Your task to perform on an android device: empty trash in google photos Image 0: 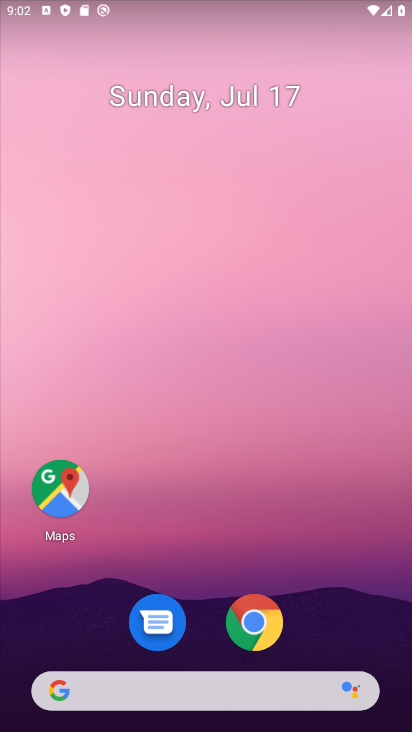
Step 0: drag from (244, 675) to (223, 110)
Your task to perform on an android device: empty trash in google photos Image 1: 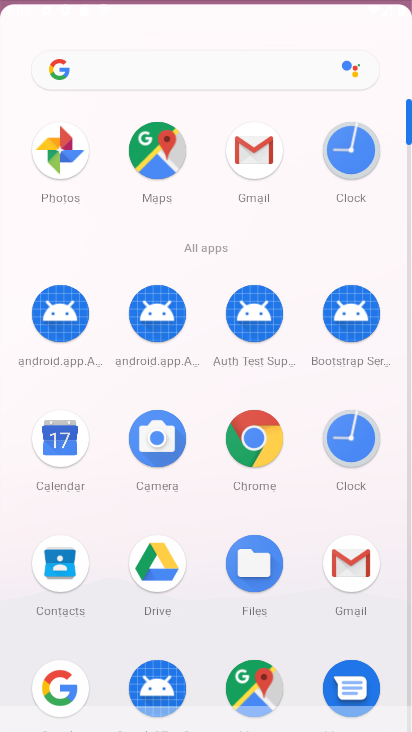
Step 1: drag from (220, 726) to (177, 26)
Your task to perform on an android device: empty trash in google photos Image 2: 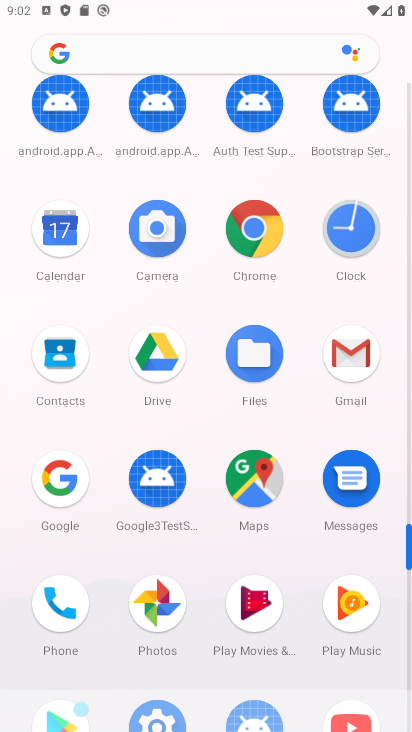
Step 2: click (161, 609)
Your task to perform on an android device: empty trash in google photos Image 3: 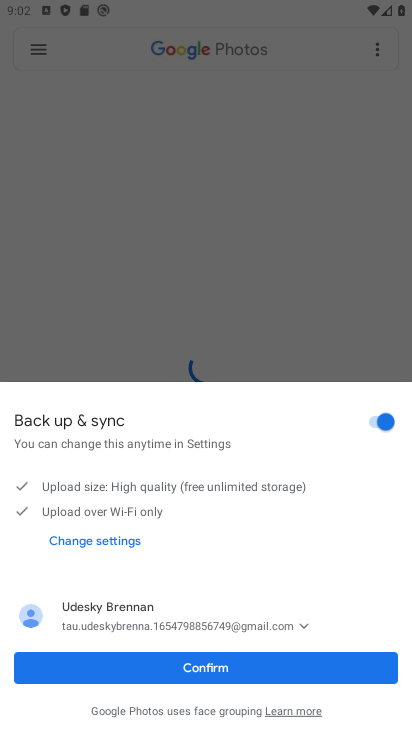
Step 3: click (262, 667)
Your task to perform on an android device: empty trash in google photos Image 4: 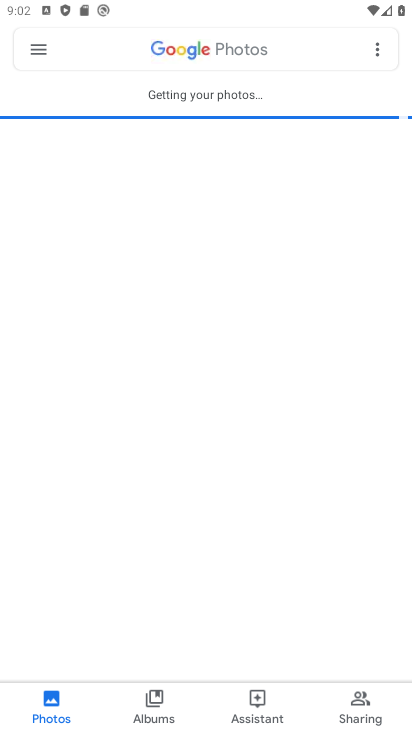
Step 4: click (45, 45)
Your task to perform on an android device: empty trash in google photos Image 5: 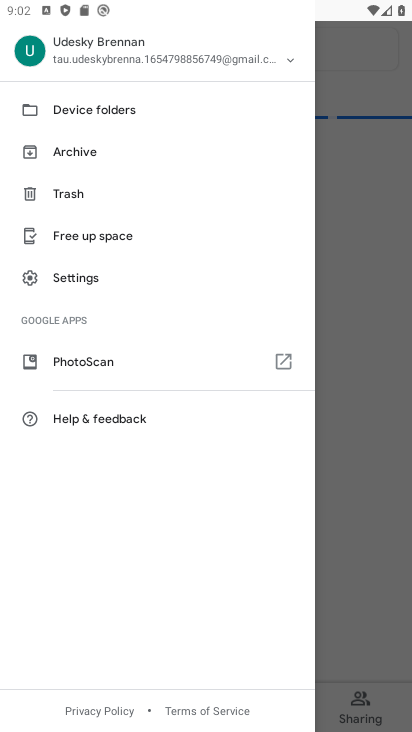
Step 5: click (102, 195)
Your task to perform on an android device: empty trash in google photos Image 6: 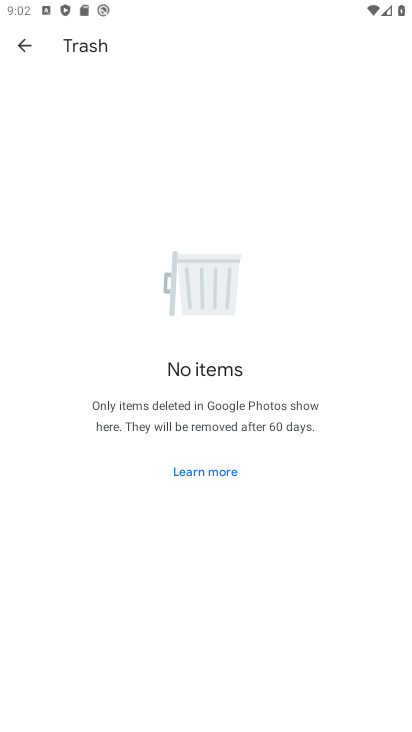
Step 6: task complete